Your task to perform on an android device: check google app version Image 0: 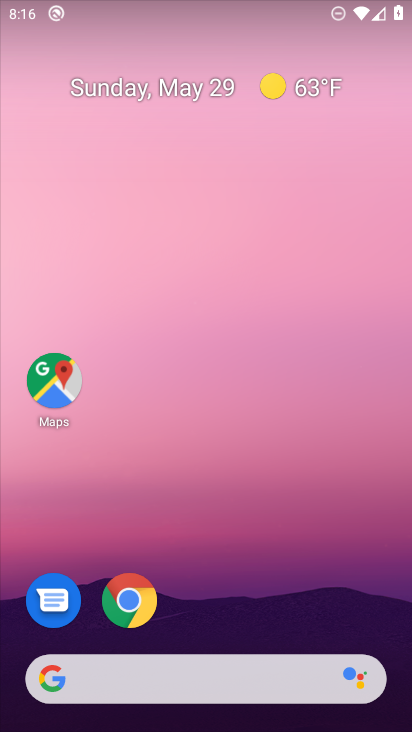
Step 0: drag from (137, 730) to (129, 44)
Your task to perform on an android device: check google app version Image 1: 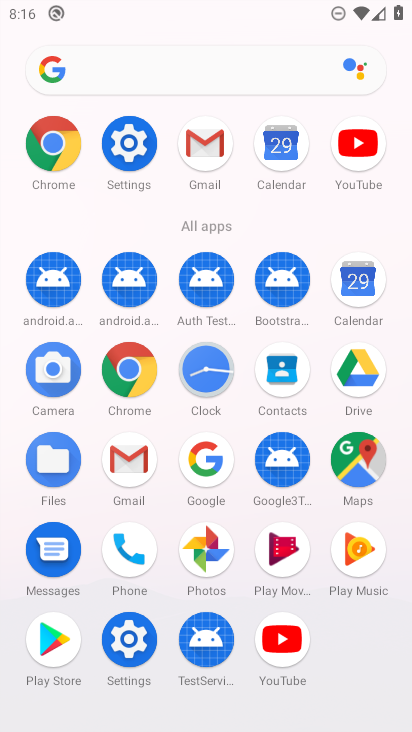
Step 1: click (208, 476)
Your task to perform on an android device: check google app version Image 2: 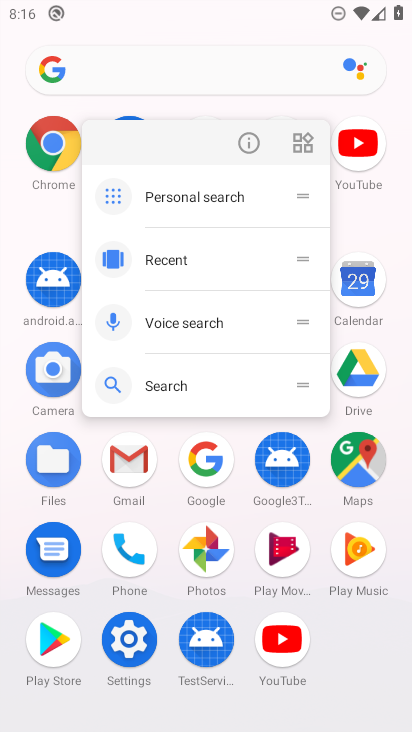
Step 2: click (373, 686)
Your task to perform on an android device: check google app version Image 3: 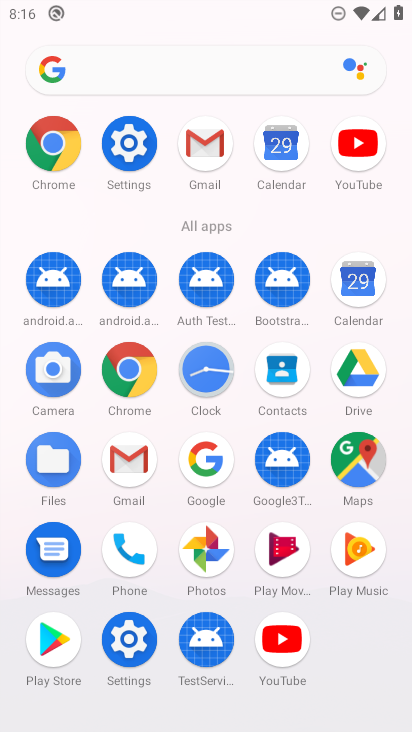
Step 3: click (203, 472)
Your task to perform on an android device: check google app version Image 4: 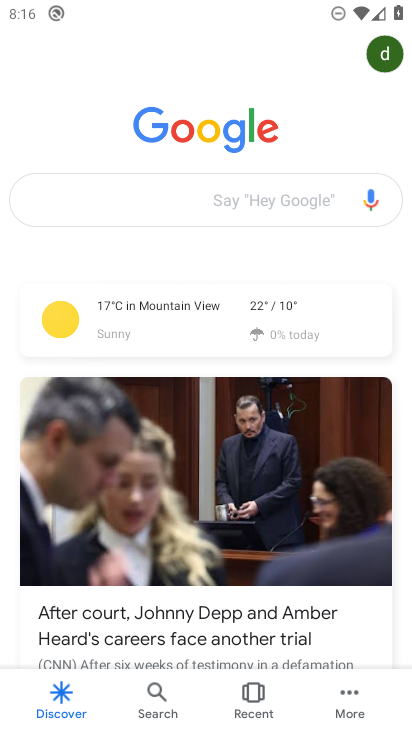
Step 4: click (348, 688)
Your task to perform on an android device: check google app version Image 5: 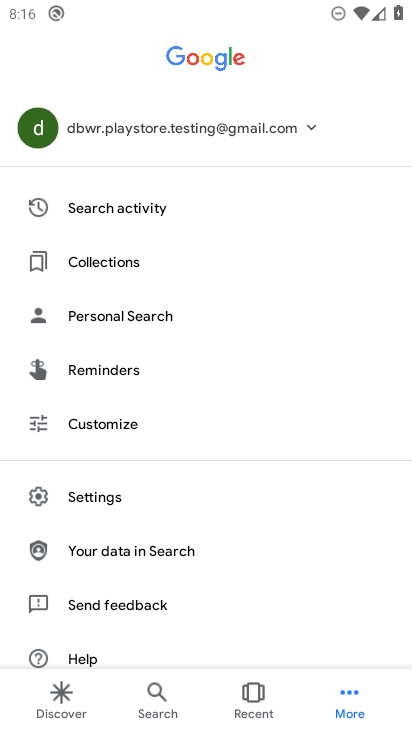
Step 5: click (104, 508)
Your task to perform on an android device: check google app version Image 6: 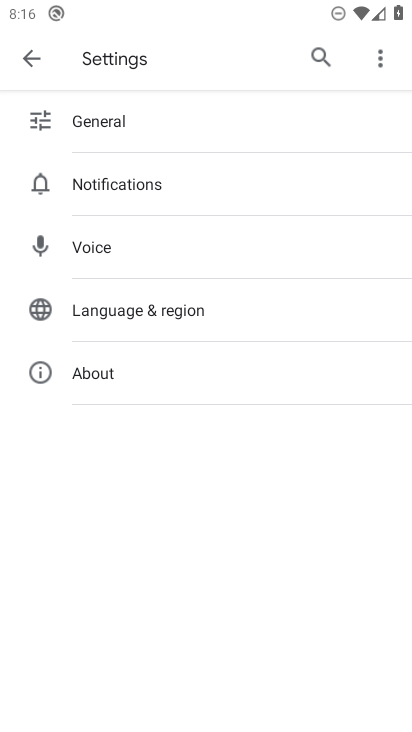
Step 6: click (103, 376)
Your task to perform on an android device: check google app version Image 7: 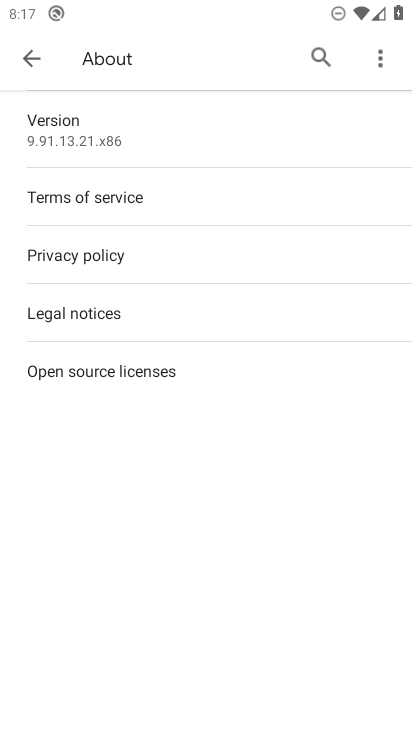
Step 7: task complete